Your task to perform on an android device: Is it going to rain this weekend? Image 0: 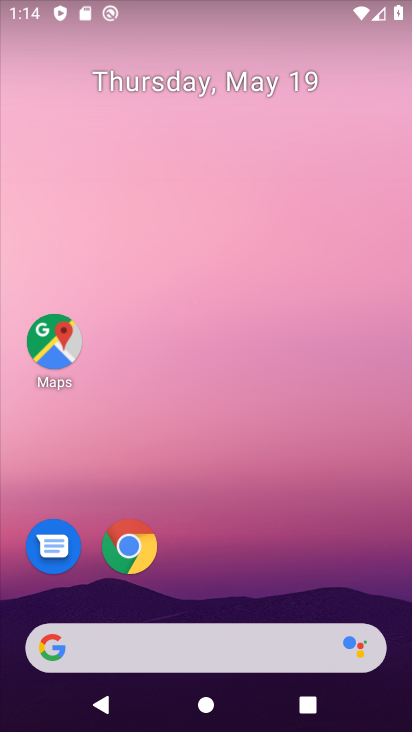
Step 0: drag from (200, 570) to (277, 288)
Your task to perform on an android device: Is it going to rain this weekend? Image 1: 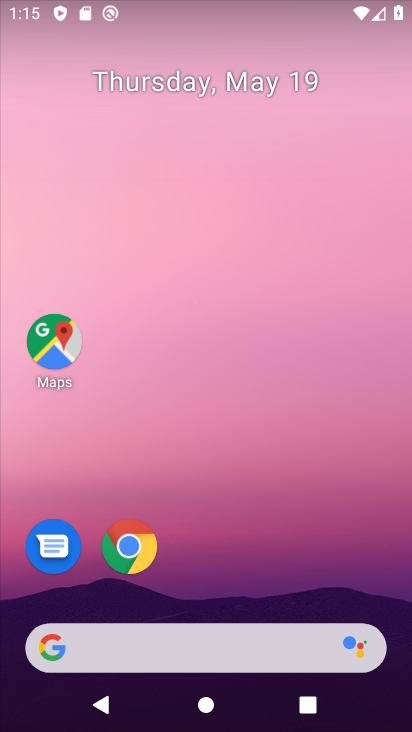
Step 1: click (127, 549)
Your task to perform on an android device: Is it going to rain this weekend? Image 2: 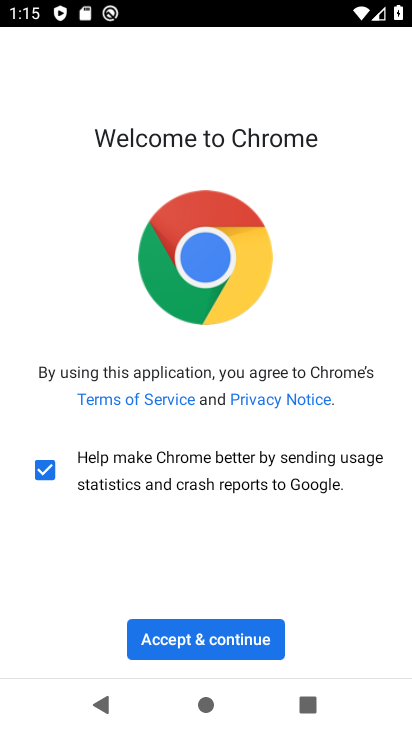
Step 2: click (227, 631)
Your task to perform on an android device: Is it going to rain this weekend? Image 3: 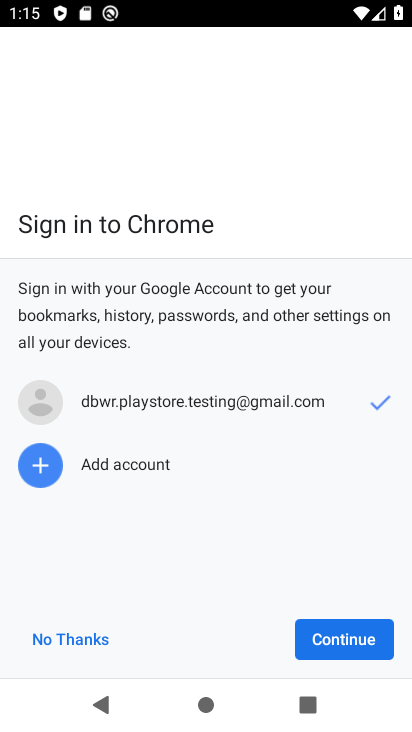
Step 3: click (342, 634)
Your task to perform on an android device: Is it going to rain this weekend? Image 4: 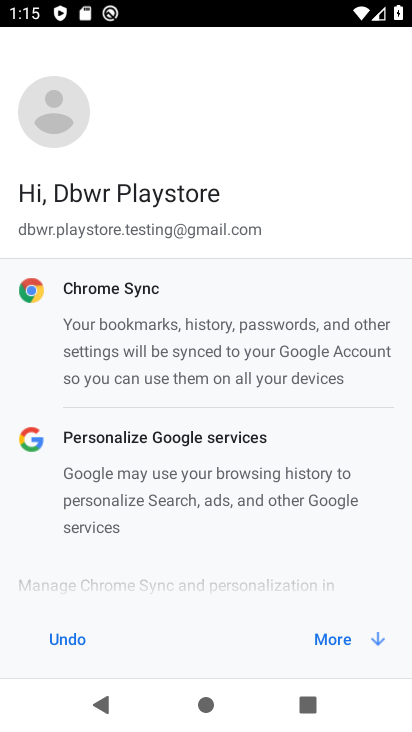
Step 4: click (332, 643)
Your task to perform on an android device: Is it going to rain this weekend? Image 5: 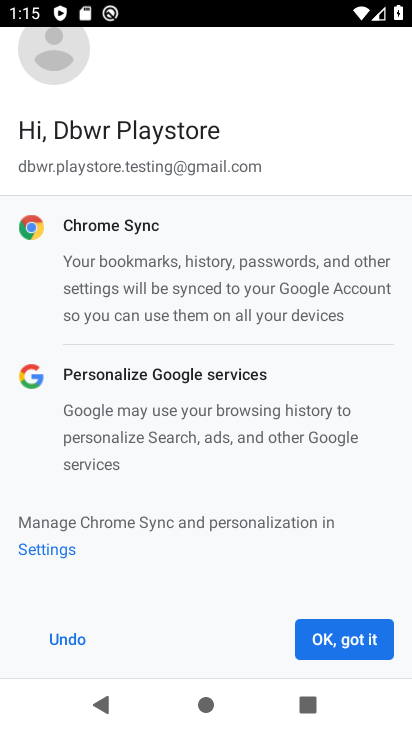
Step 5: click (326, 633)
Your task to perform on an android device: Is it going to rain this weekend? Image 6: 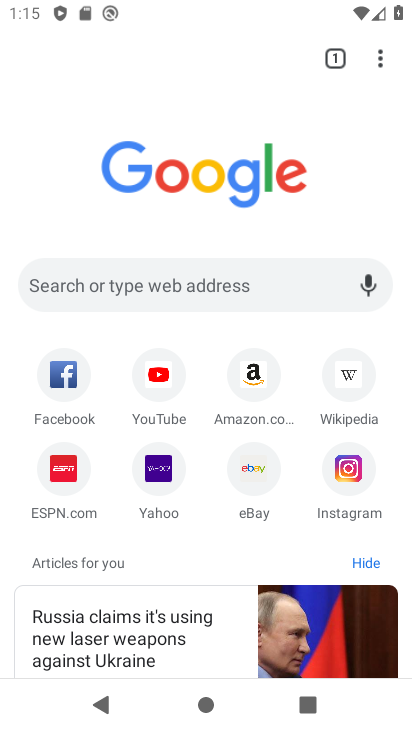
Step 6: click (134, 287)
Your task to perform on an android device: Is it going to rain this weekend? Image 7: 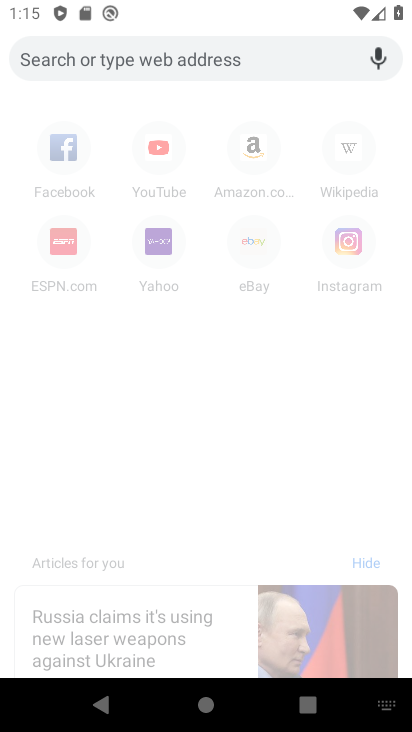
Step 7: type "Is it going to rain this weekend?"
Your task to perform on an android device: Is it going to rain this weekend? Image 8: 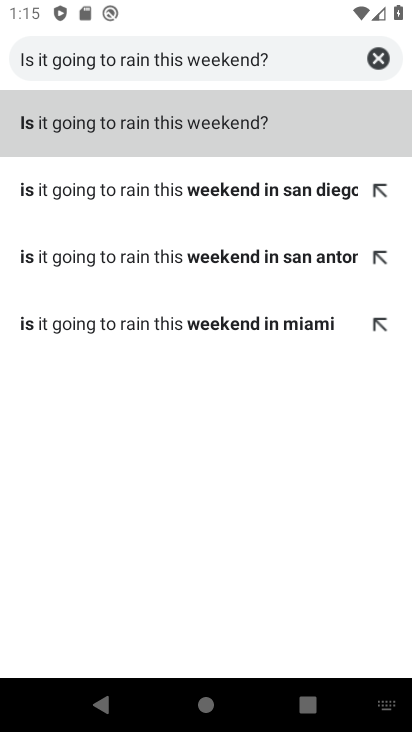
Step 8: click (250, 123)
Your task to perform on an android device: Is it going to rain this weekend? Image 9: 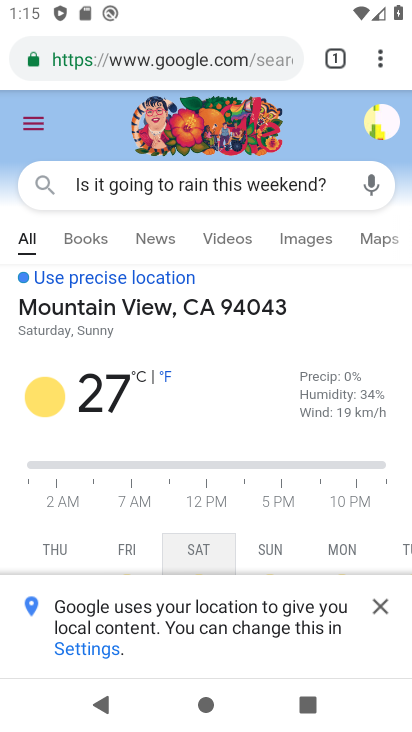
Step 9: task complete